Your task to perform on an android device: turn off notifications in google photos Image 0: 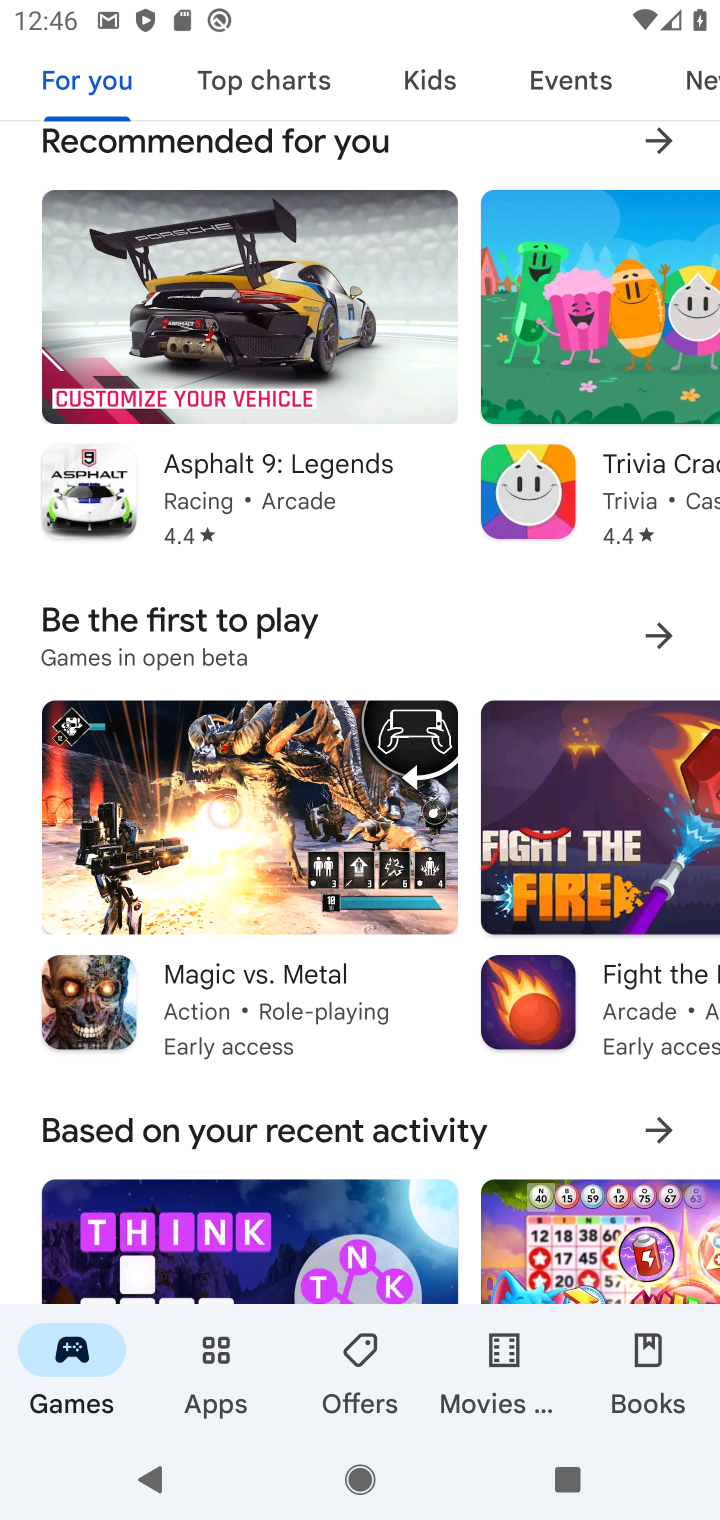
Step 0: press home button
Your task to perform on an android device: turn off notifications in google photos Image 1: 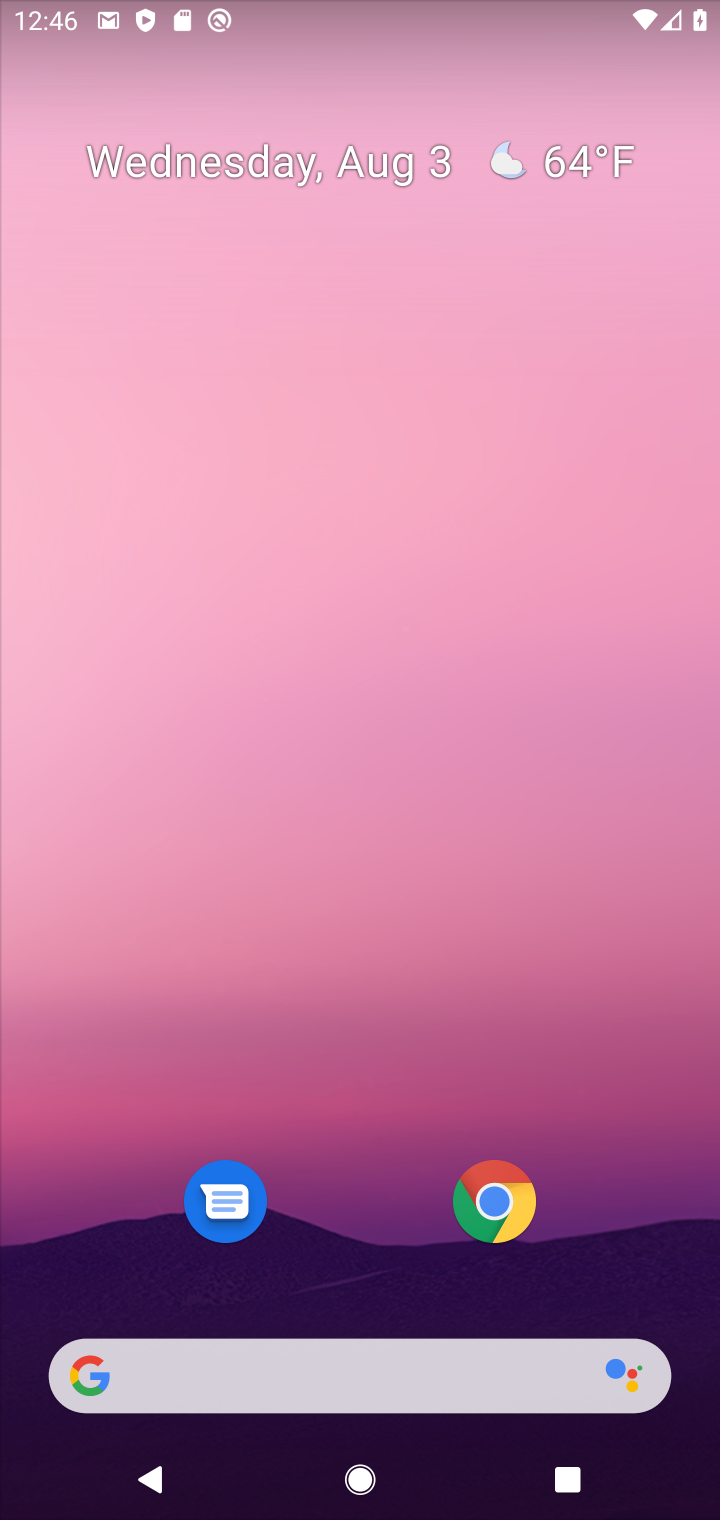
Step 1: drag from (353, 1300) to (532, 287)
Your task to perform on an android device: turn off notifications in google photos Image 2: 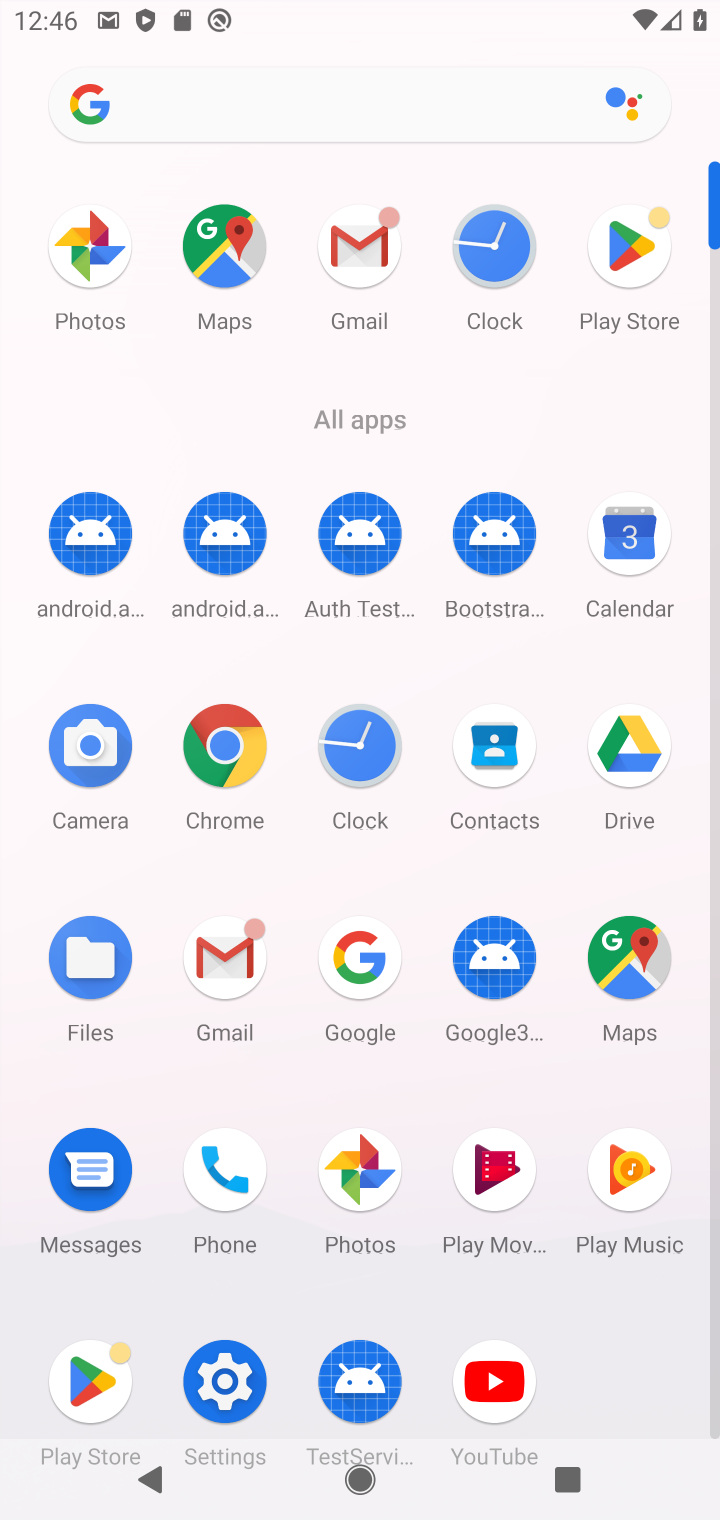
Step 2: click (366, 1153)
Your task to perform on an android device: turn off notifications in google photos Image 3: 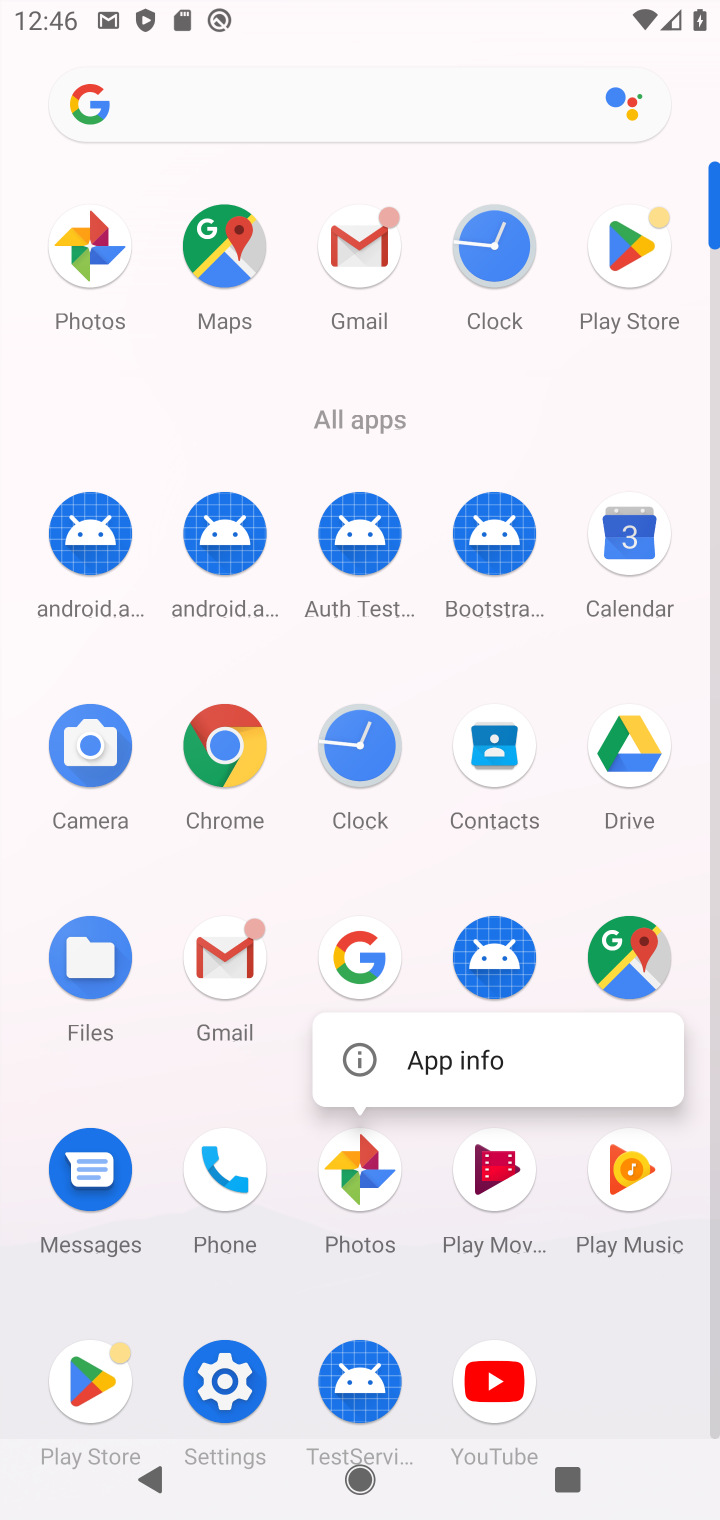
Step 3: click (366, 1153)
Your task to perform on an android device: turn off notifications in google photos Image 4: 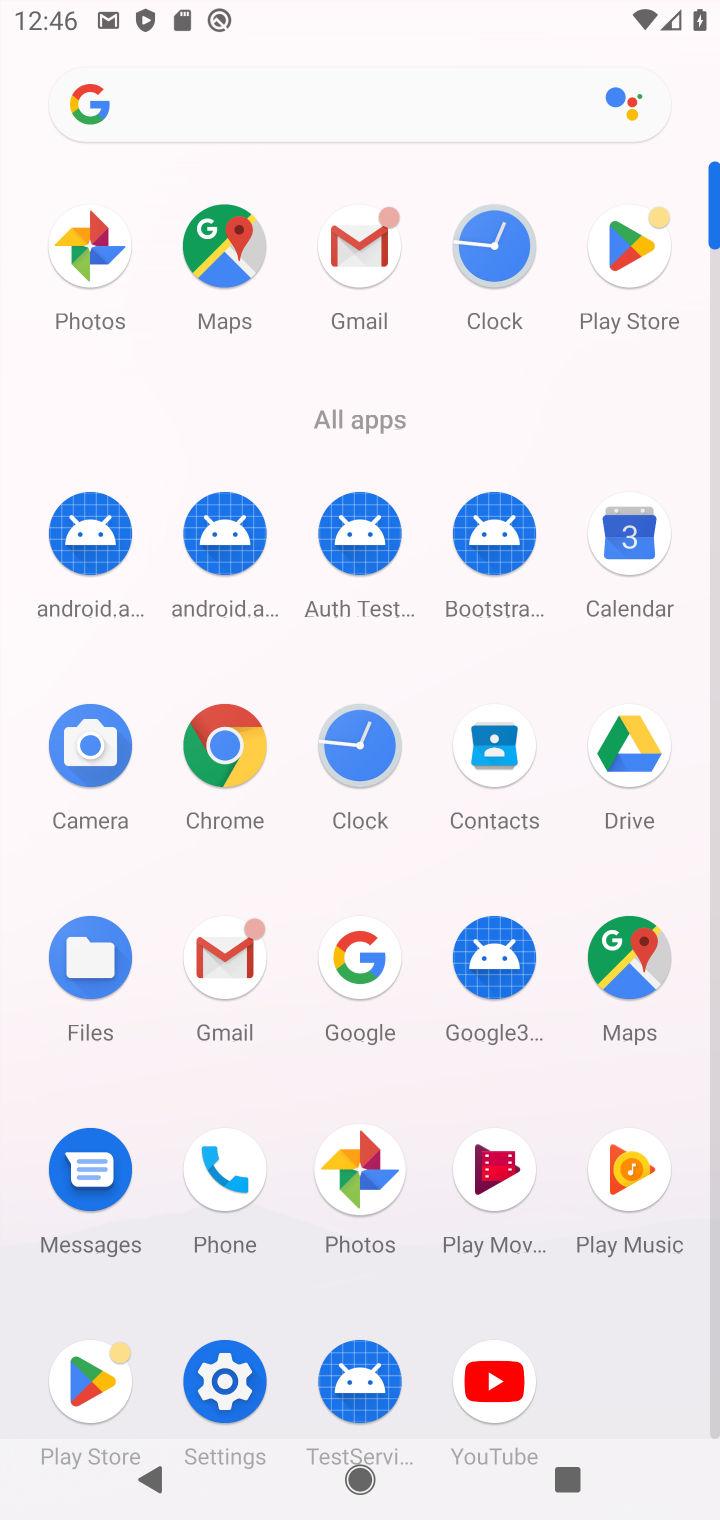
Step 4: click (366, 1153)
Your task to perform on an android device: turn off notifications in google photos Image 5: 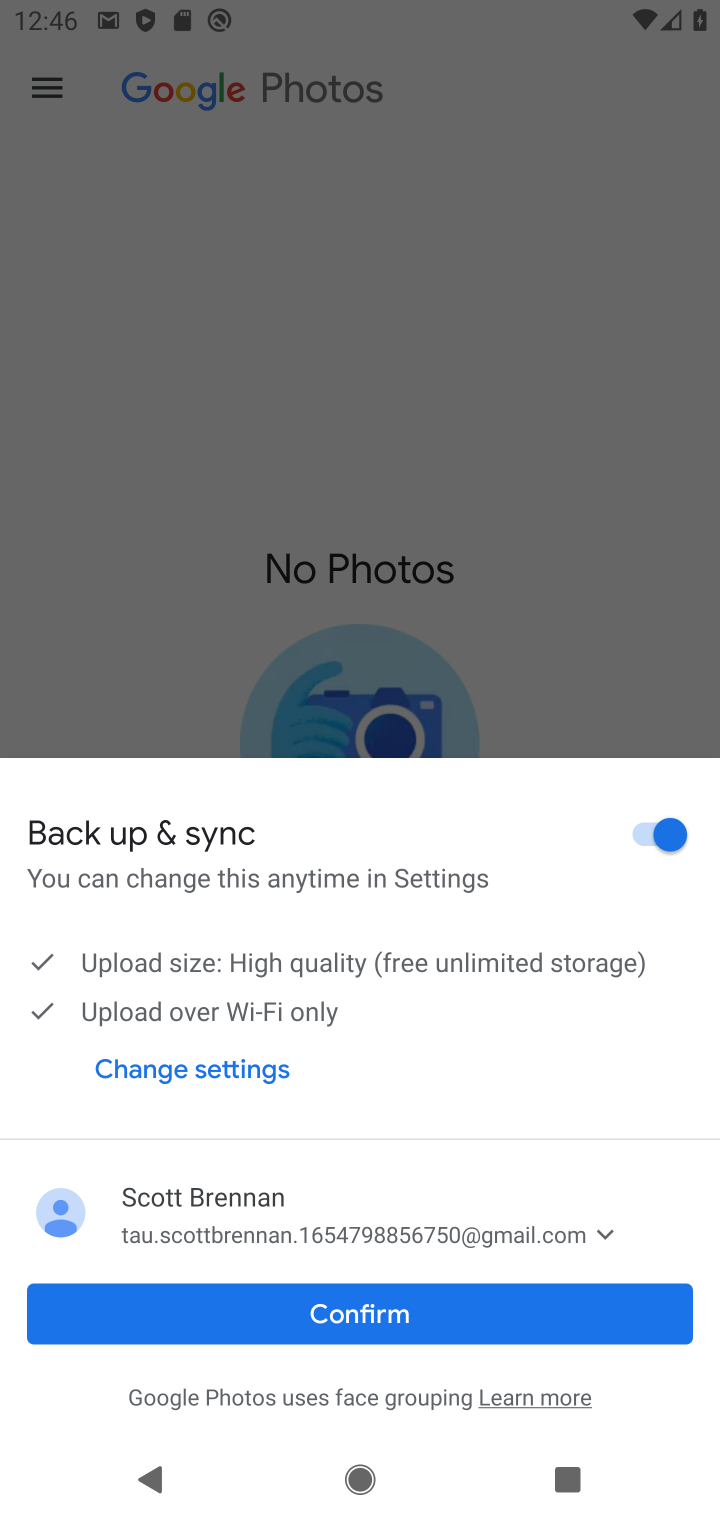
Step 5: click (377, 1307)
Your task to perform on an android device: turn off notifications in google photos Image 6: 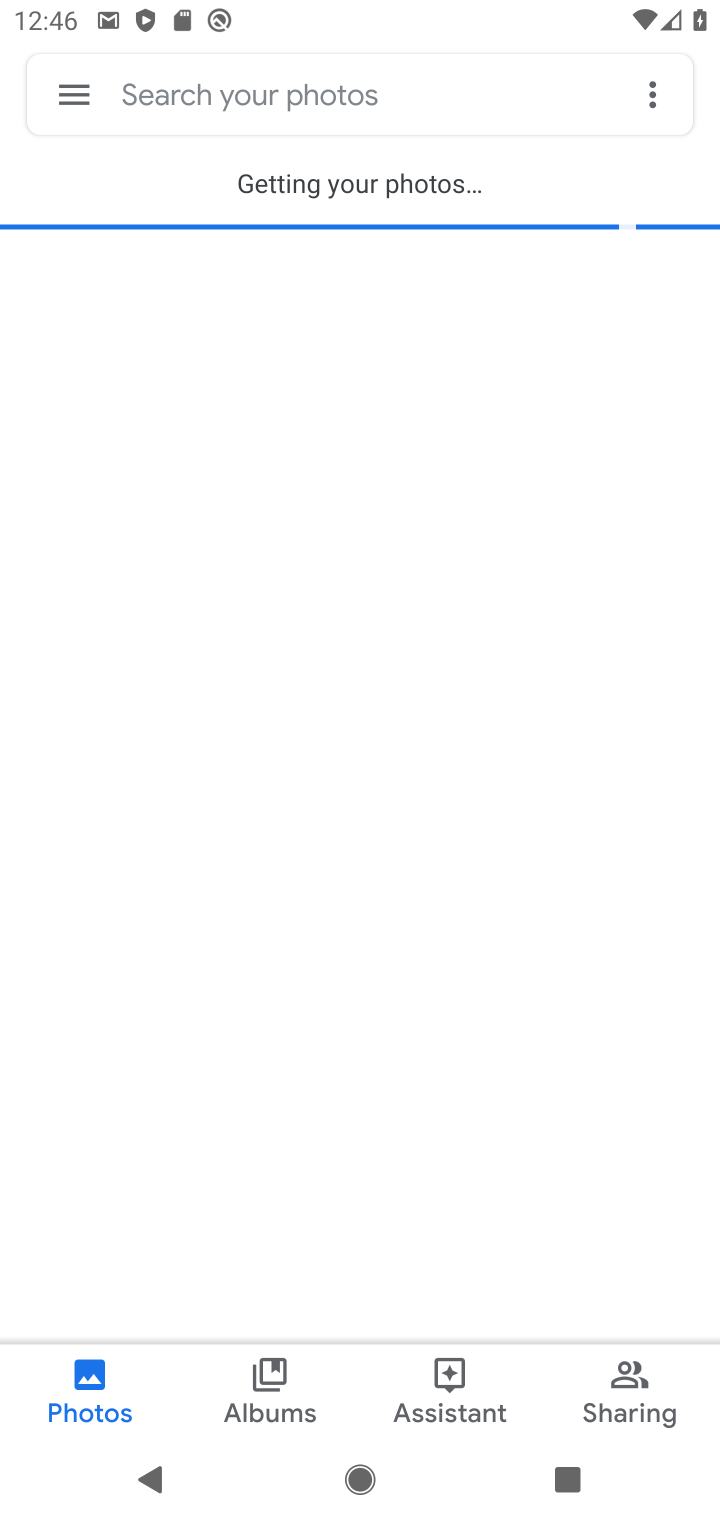
Step 6: click (76, 86)
Your task to perform on an android device: turn off notifications in google photos Image 7: 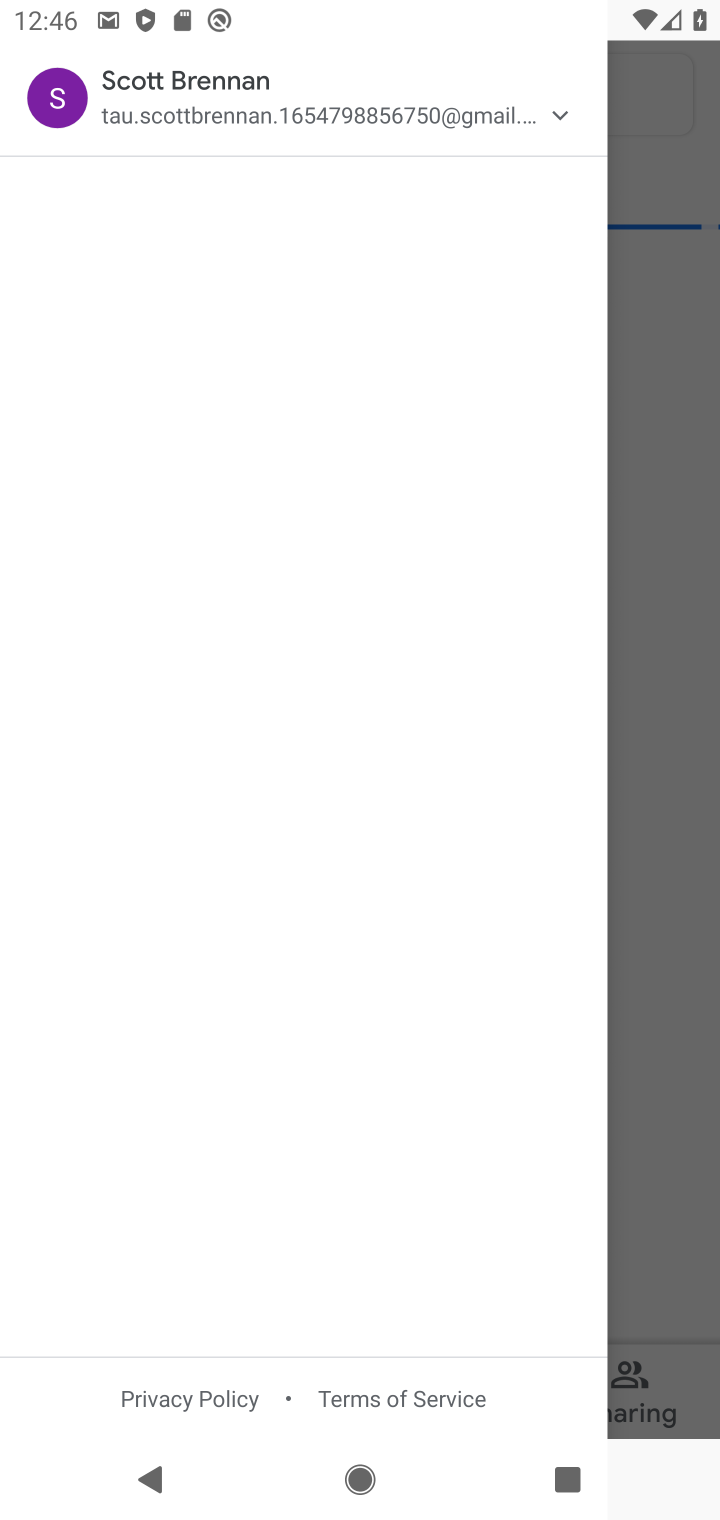
Step 7: click (680, 690)
Your task to perform on an android device: turn off notifications in google photos Image 8: 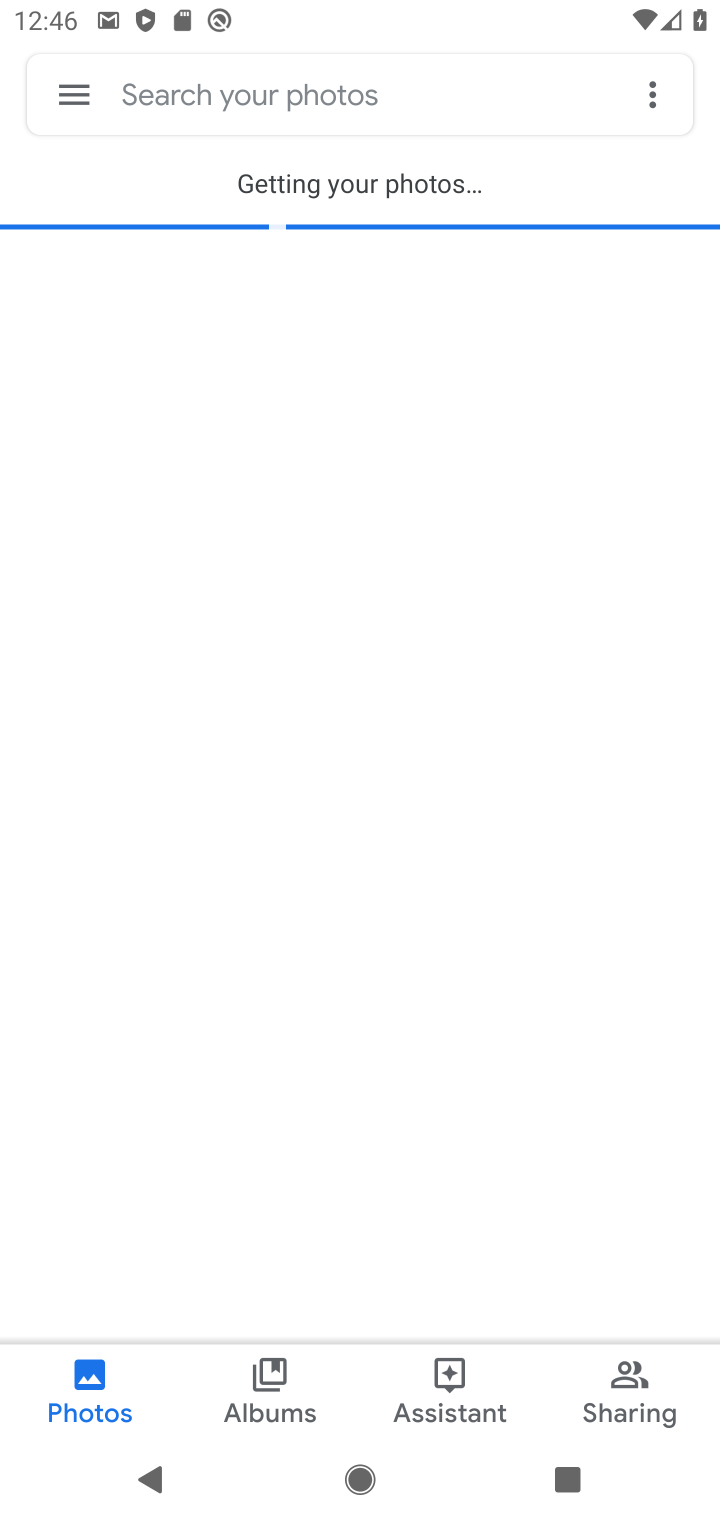
Step 8: click (71, 90)
Your task to perform on an android device: turn off notifications in google photos Image 9: 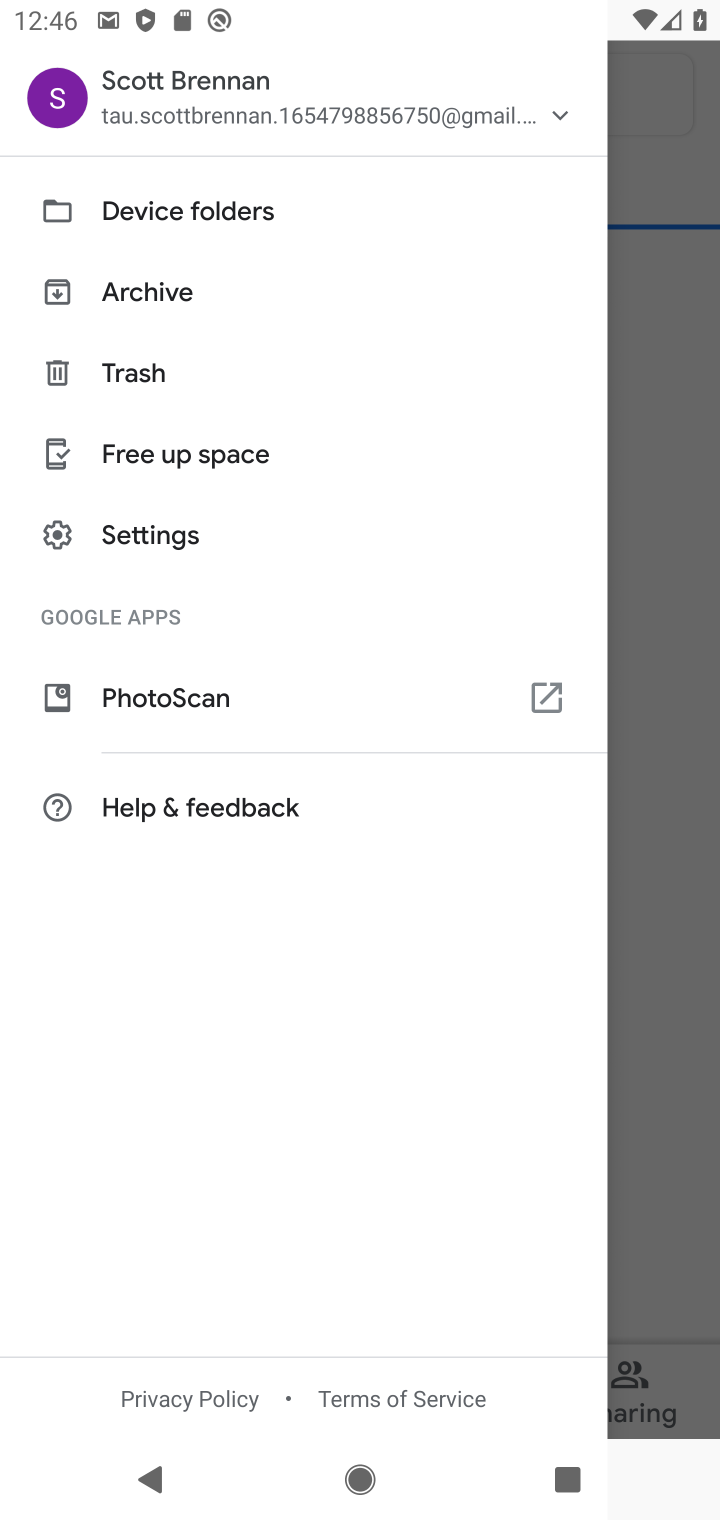
Step 9: click (165, 533)
Your task to perform on an android device: turn off notifications in google photos Image 10: 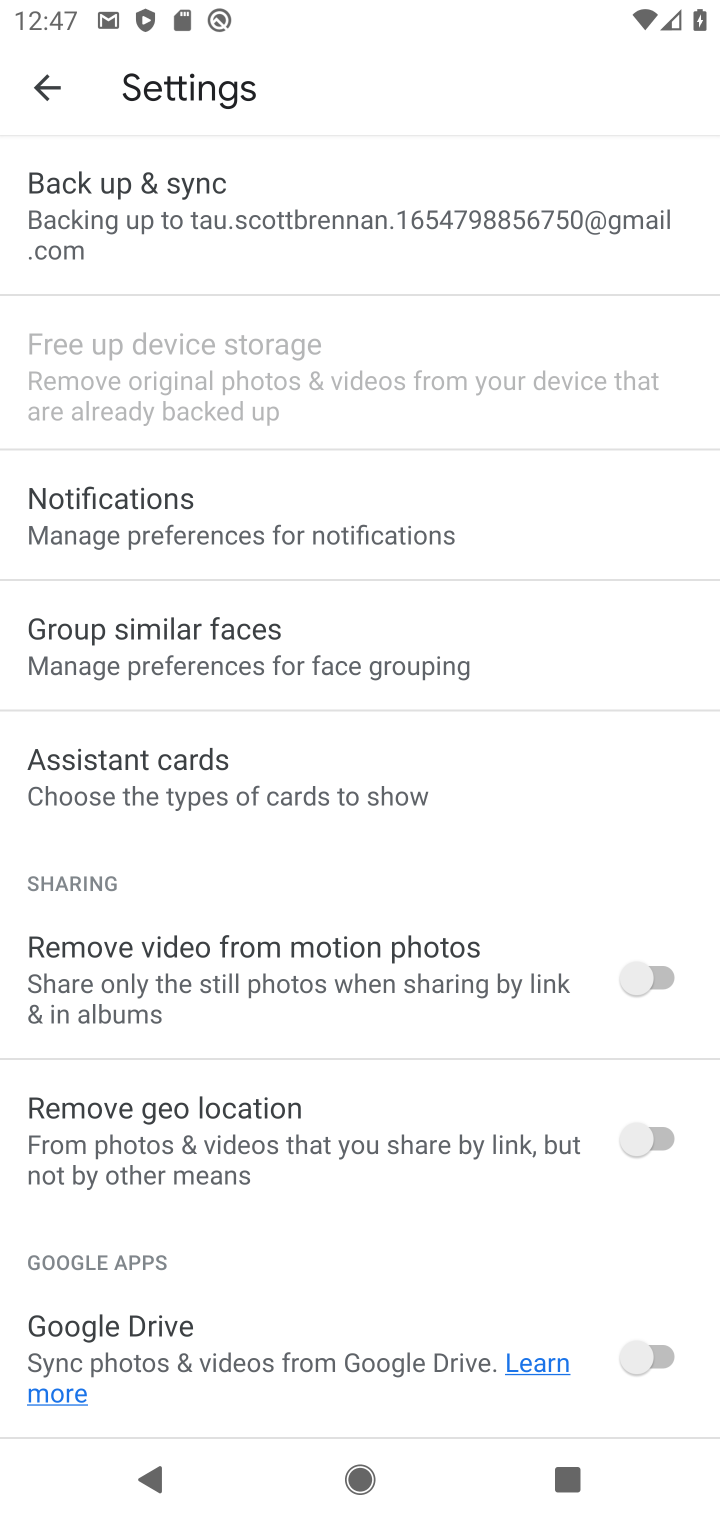
Step 10: click (251, 516)
Your task to perform on an android device: turn off notifications in google photos Image 11: 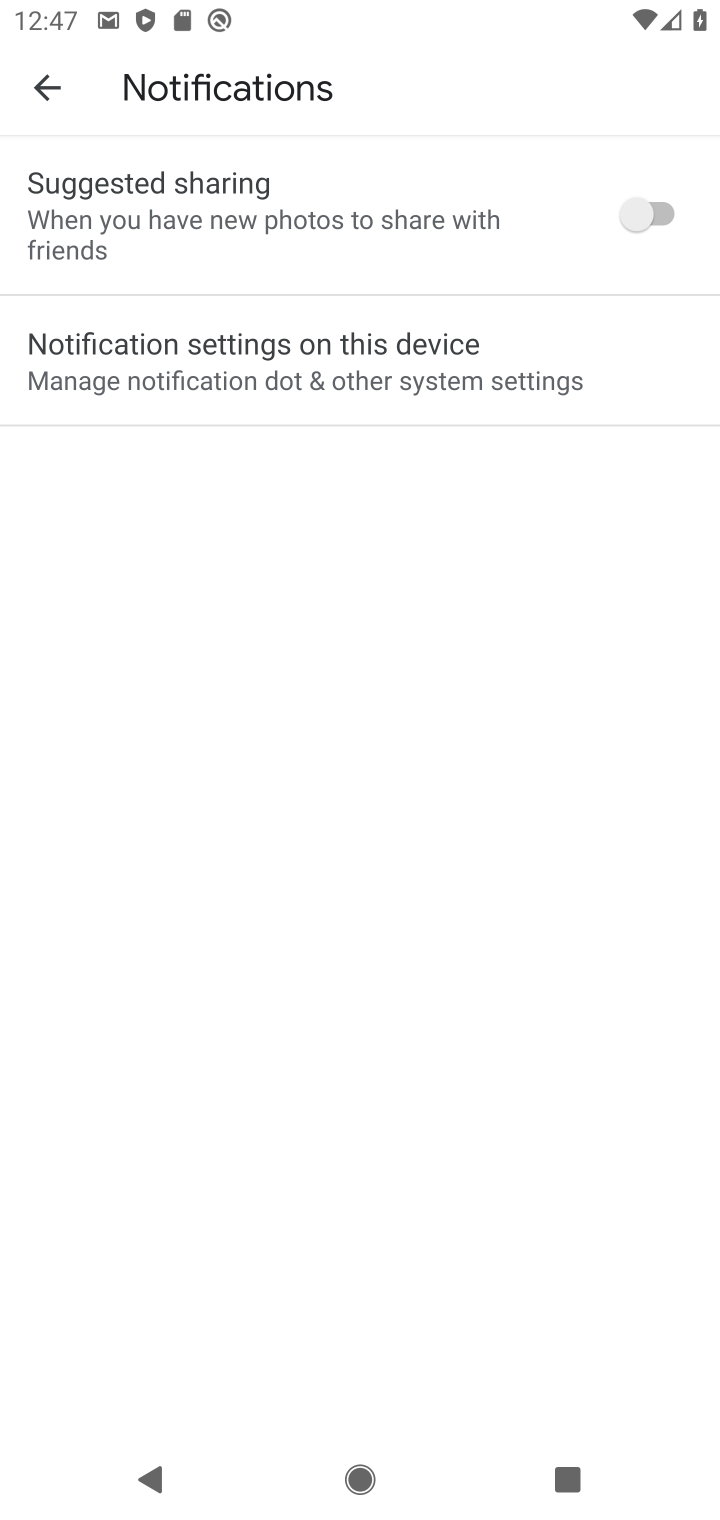
Step 11: task complete